Your task to perform on an android device: Go to display settings Image 0: 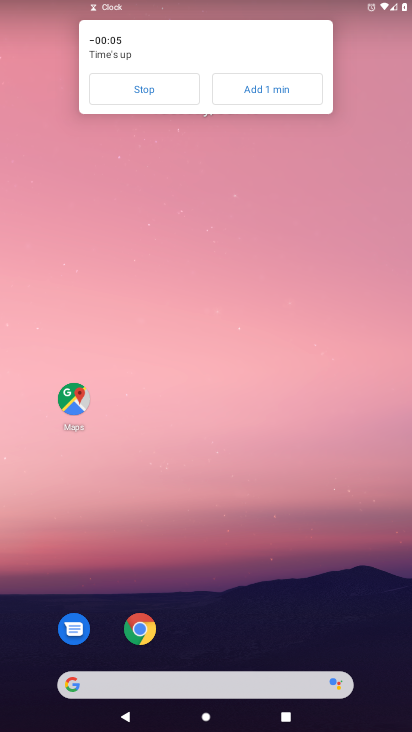
Step 0: click (163, 84)
Your task to perform on an android device: Go to display settings Image 1: 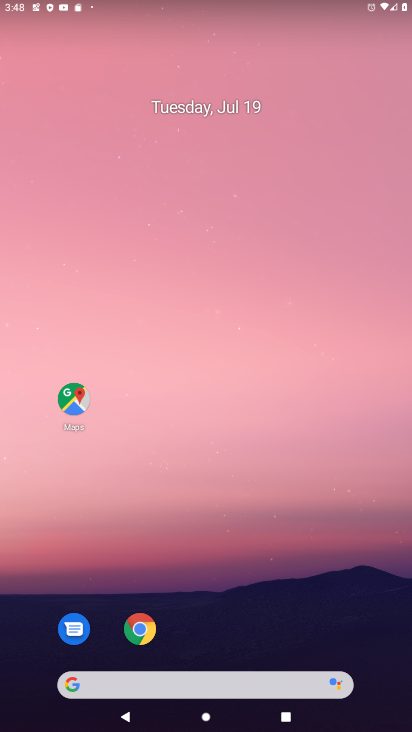
Step 1: drag from (188, 640) to (189, 198)
Your task to perform on an android device: Go to display settings Image 2: 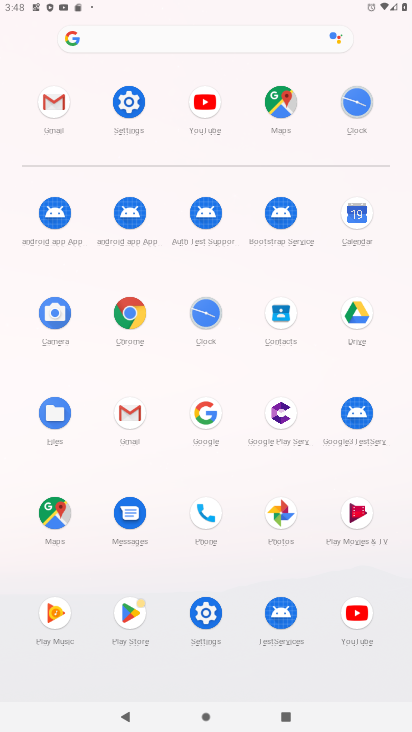
Step 2: click (127, 105)
Your task to perform on an android device: Go to display settings Image 3: 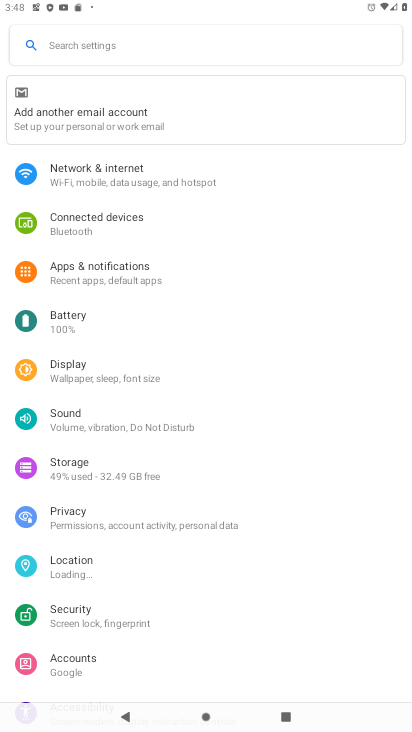
Step 3: click (75, 371)
Your task to perform on an android device: Go to display settings Image 4: 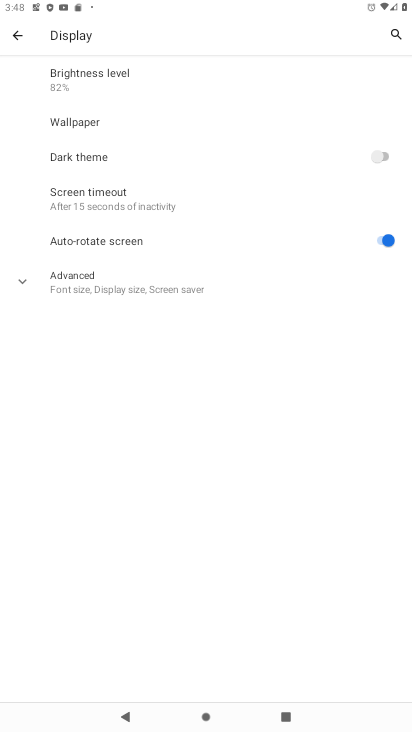
Step 4: click (85, 278)
Your task to perform on an android device: Go to display settings Image 5: 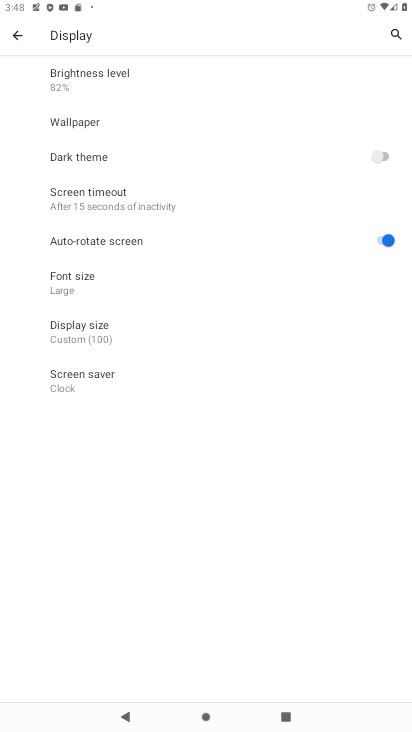
Step 5: task complete